Your task to perform on an android device: toggle notification dots Image 0: 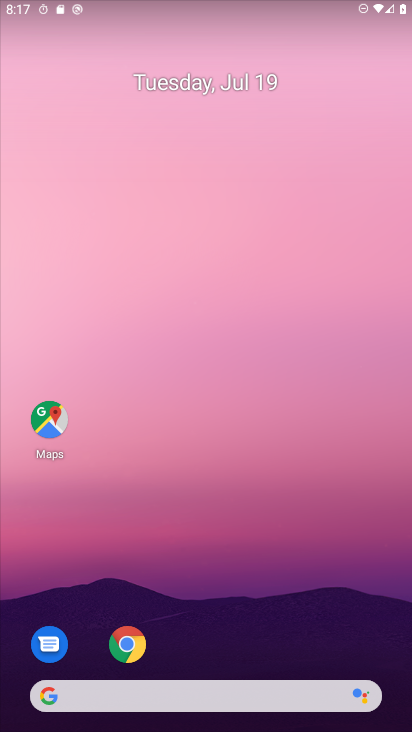
Step 0: drag from (20, 683) to (243, 80)
Your task to perform on an android device: toggle notification dots Image 1: 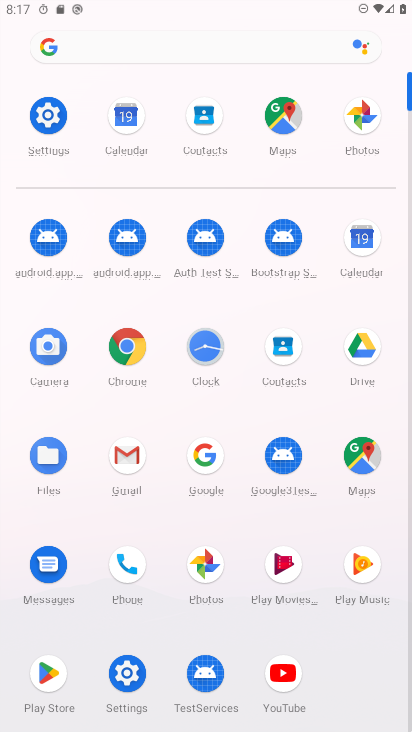
Step 1: click (129, 685)
Your task to perform on an android device: toggle notification dots Image 2: 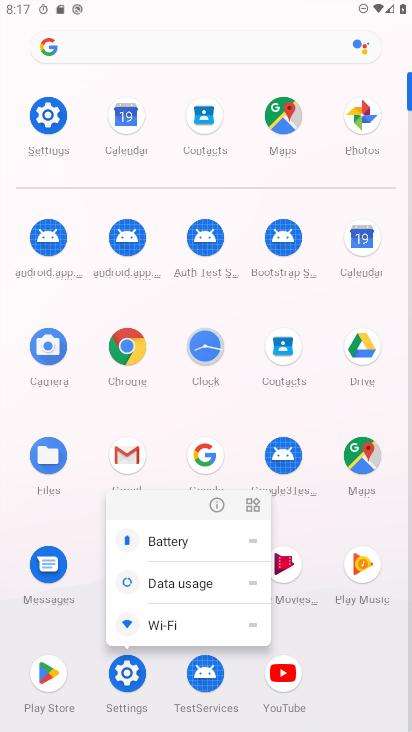
Step 2: click (129, 674)
Your task to perform on an android device: toggle notification dots Image 3: 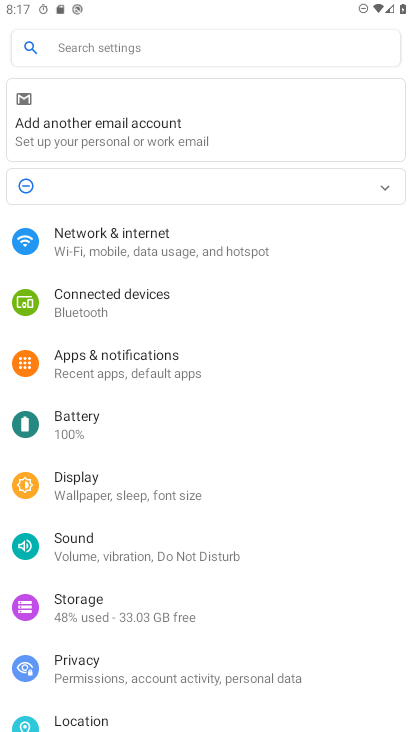
Step 3: click (104, 358)
Your task to perform on an android device: toggle notification dots Image 4: 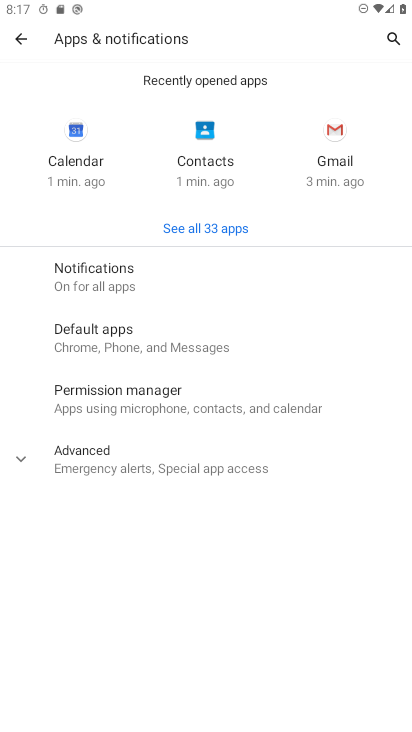
Step 4: click (115, 280)
Your task to perform on an android device: toggle notification dots Image 5: 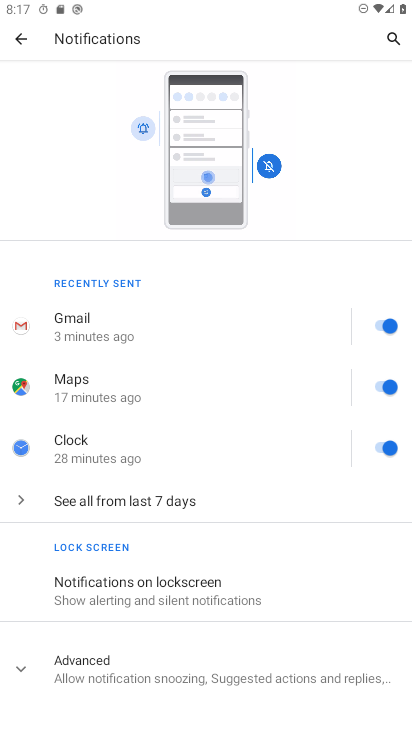
Step 5: drag from (239, 627) to (275, 298)
Your task to perform on an android device: toggle notification dots Image 6: 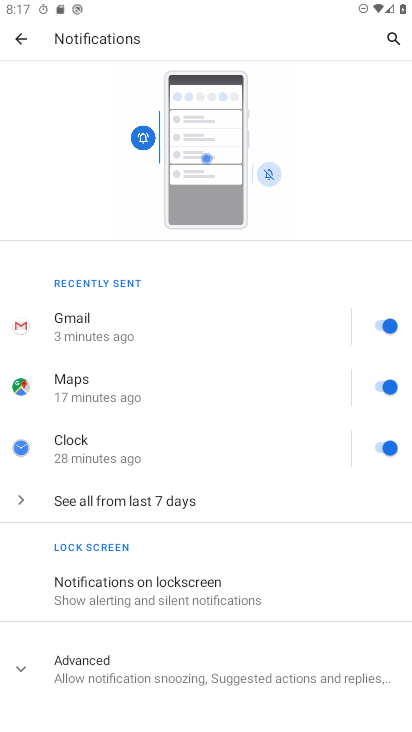
Step 6: click (134, 670)
Your task to perform on an android device: toggle notification dots Image 7: 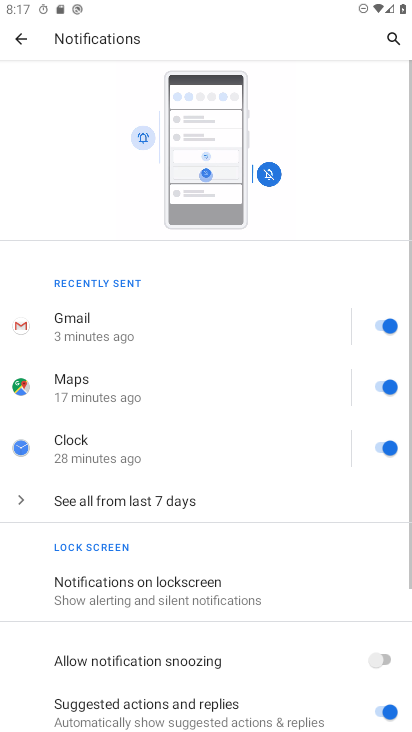
Step 7: drag from (213, 631) to (271, 293)
Your task to perform on an android device: toggle notification dots Image 8: 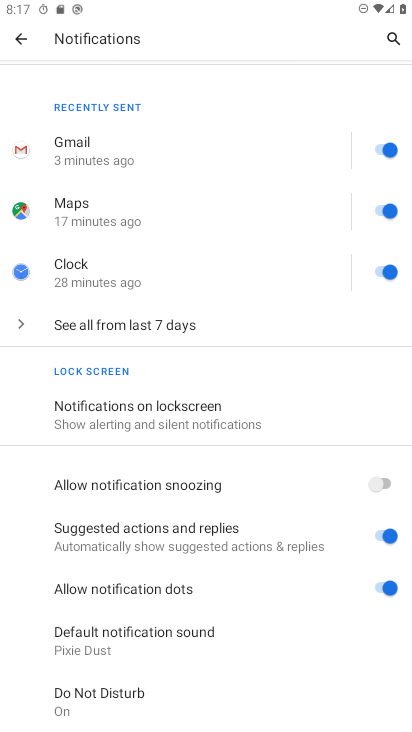
Step 8: click (408, 578)
Your task to perform on an android device: toggle notification dots Image 9: 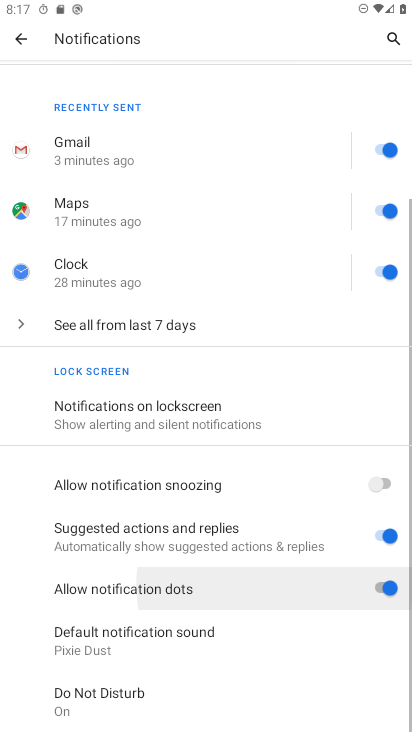
Step 9: click (386, 592)
Your task to perform on an android device: toggle notification dots Image 10: 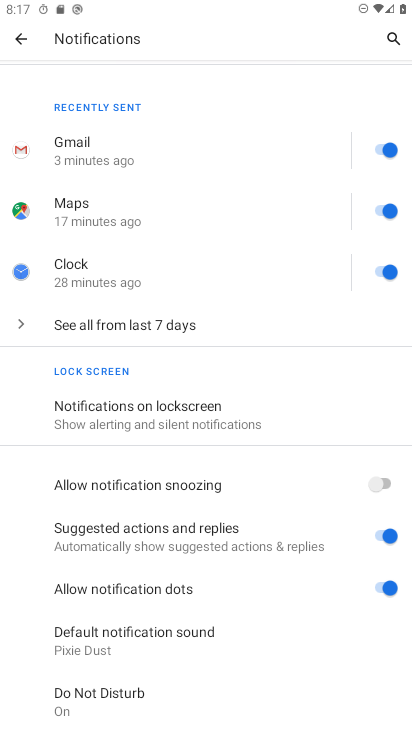
Step 10: task complete